Your task to perform on an android device: What is the speed of a skateboard? Image 0: 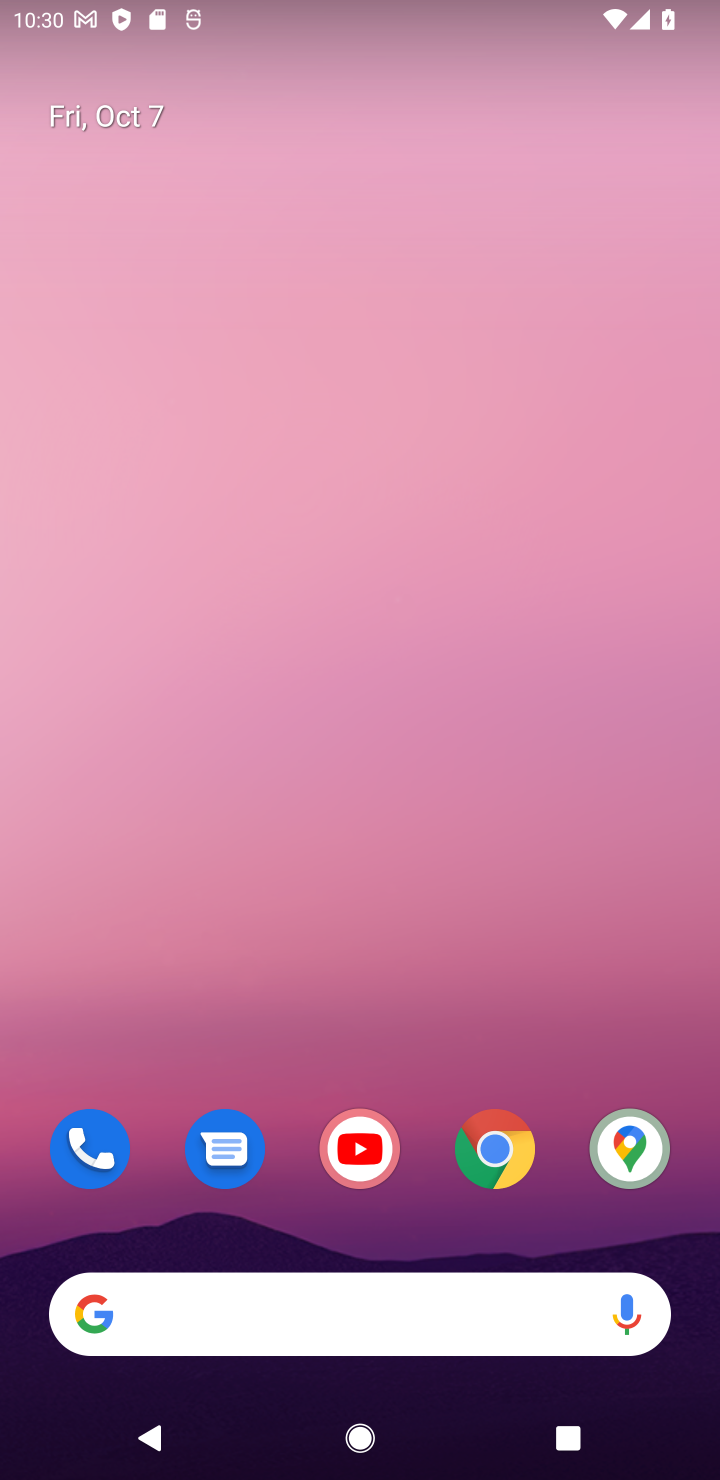
Step 0: click (402, 1272)
Your task to perform on an android device: What is the speed of a skateboard? Image 1: 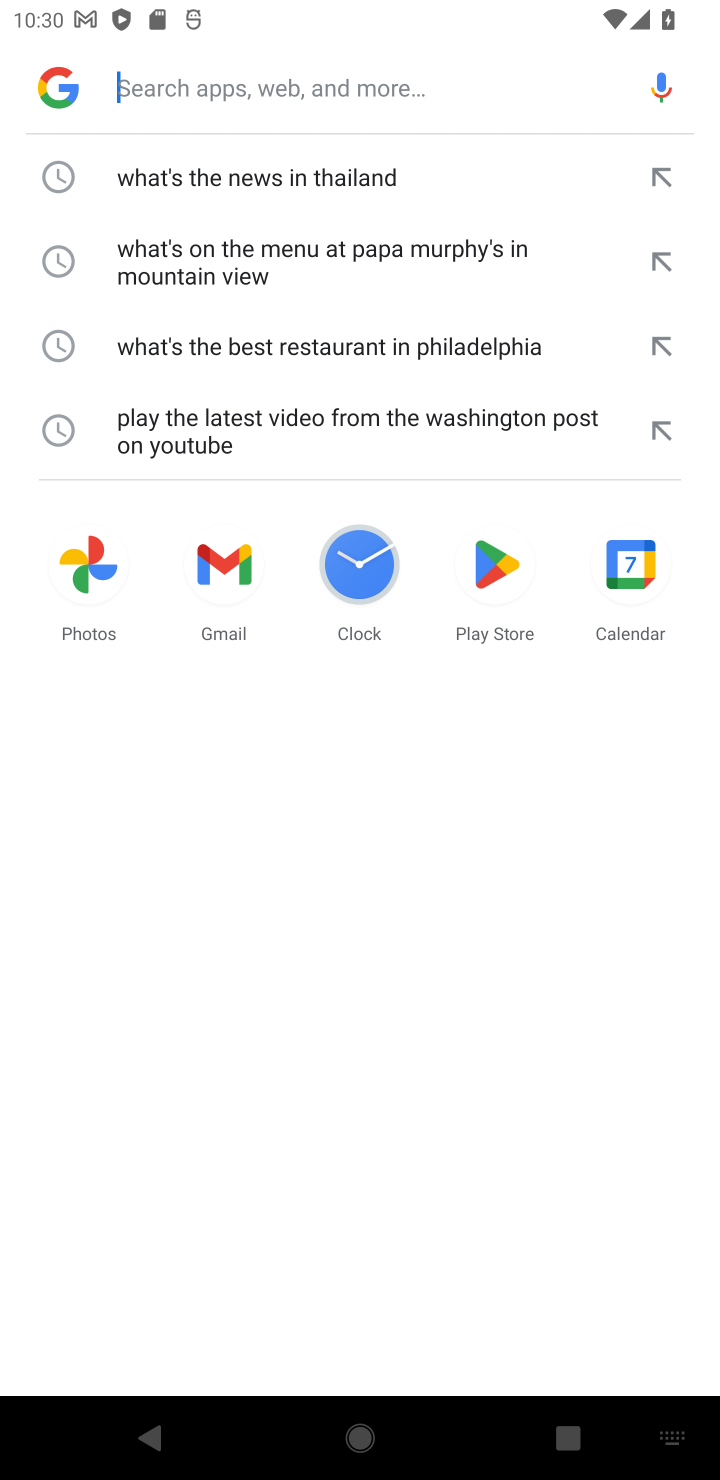
Step 1: type "What is the speed of a skateboard?"
Your task to perform on an android device: What is the speed of a skateboard? Image 2: 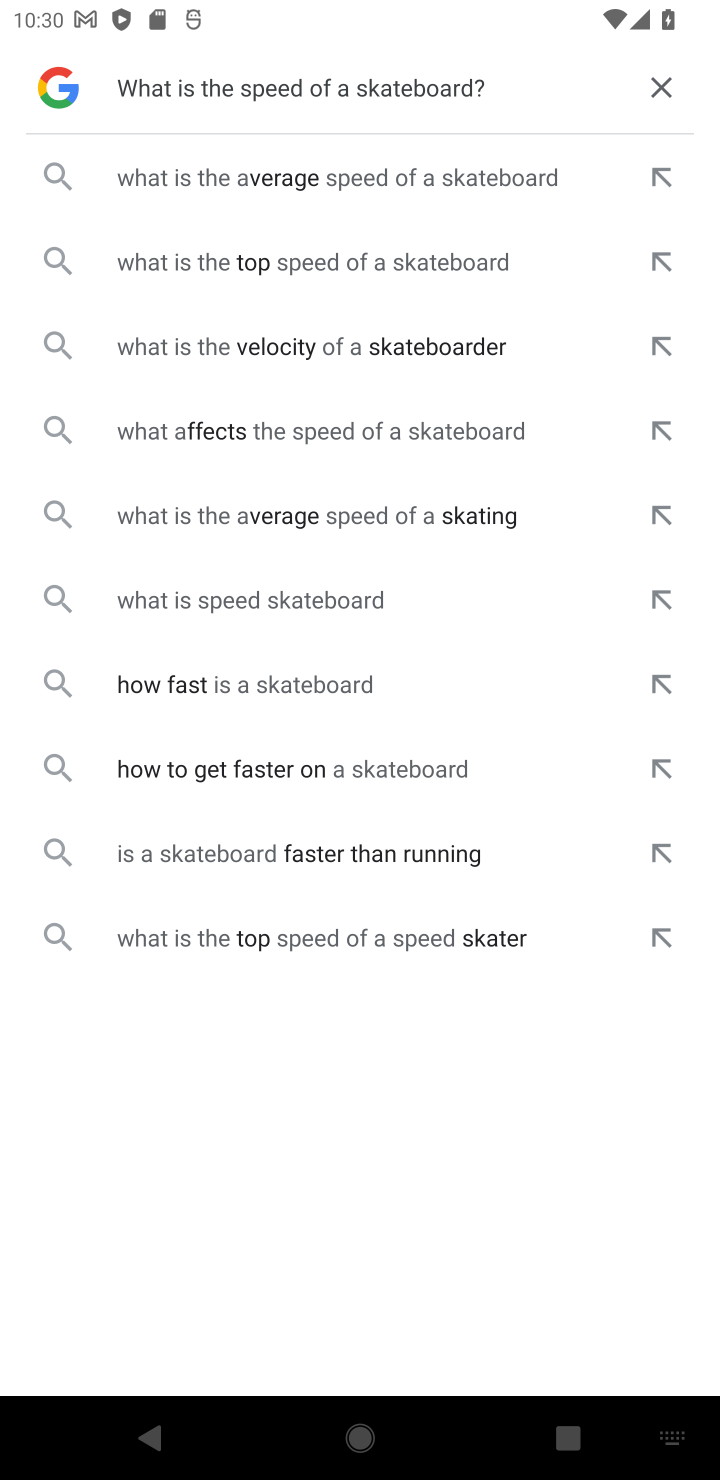
Step 2: click (356, 168)
Your task to perform on an android device: What is the speed of a skateboard? Image 3: 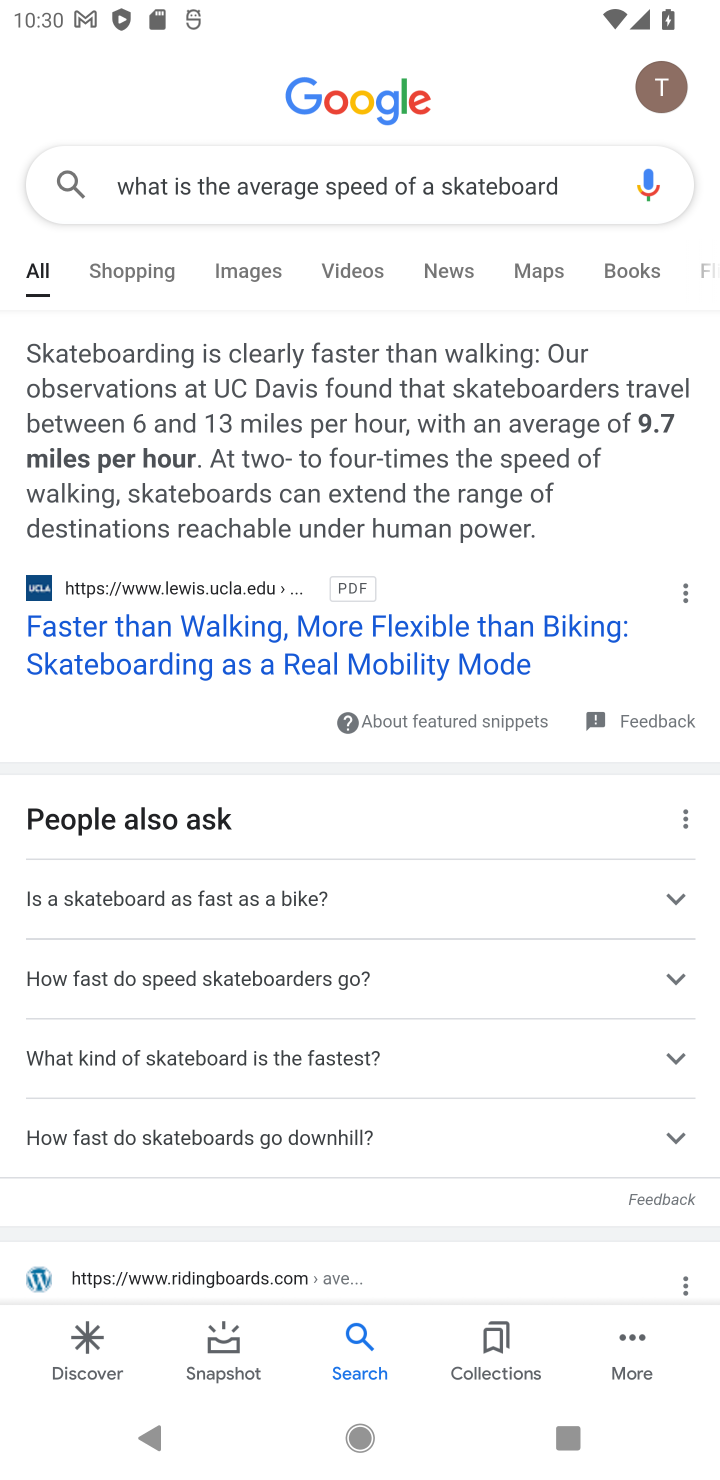
Step 3: task complete